Your task to perform on an android device: turn on javascript in the chrome app Image 0: 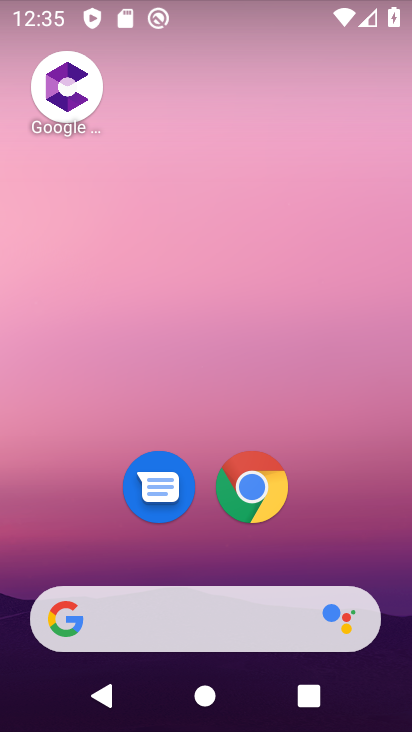
Step 0: click (275, 492)
Your task to perform on an android device: turn on javascript in the chrome app Image 1: 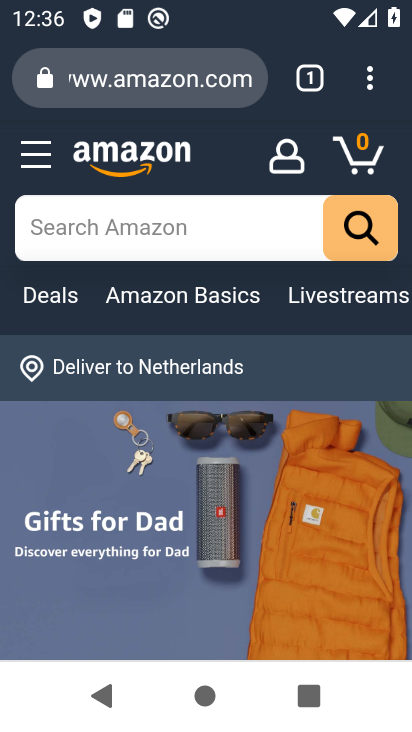
Step 1: drag from (370, 89) to (105, 537)
Your task to perform on an android device: turn on javascript in the chrome app Image 2: 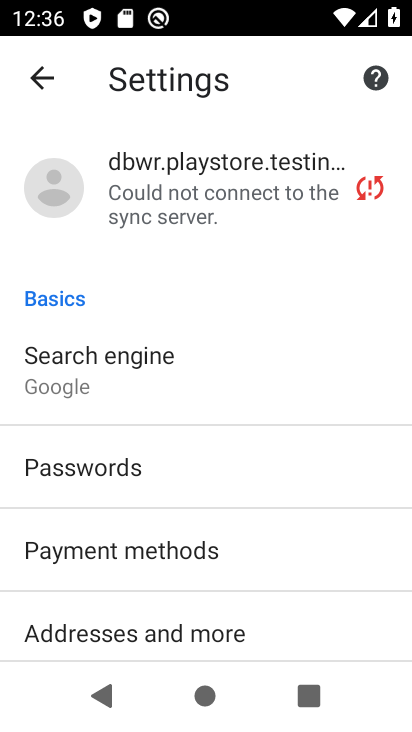
Step 2: drag from (177, 552) to (219, 1)
Your task to perform on an android device: turn on javascript in the chrome app Image 3: 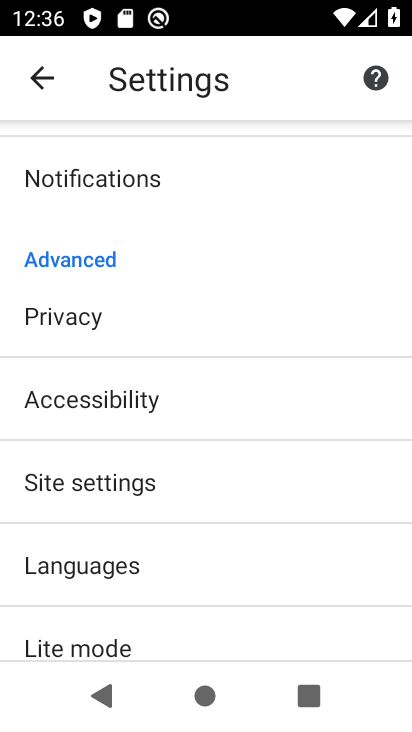
Step 3: drag from (156, 606) to (126, 201)
Your task to perform on an android device: turn on javascript in the chrome app Image 4: 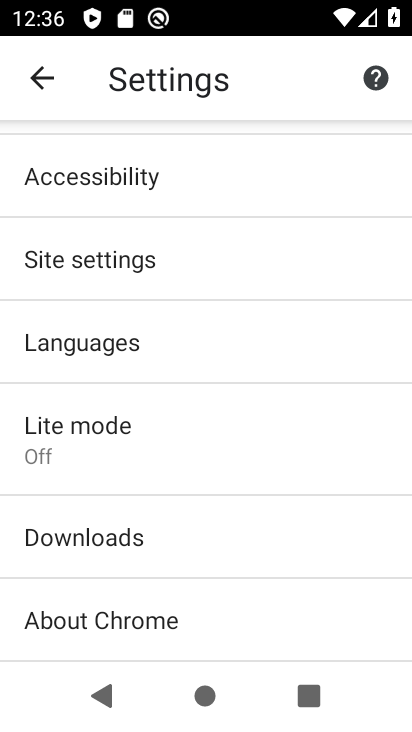
Step 4: click (102, 260)
Your task to perform on an android device: turn on javascript in the chrome app Image 5: 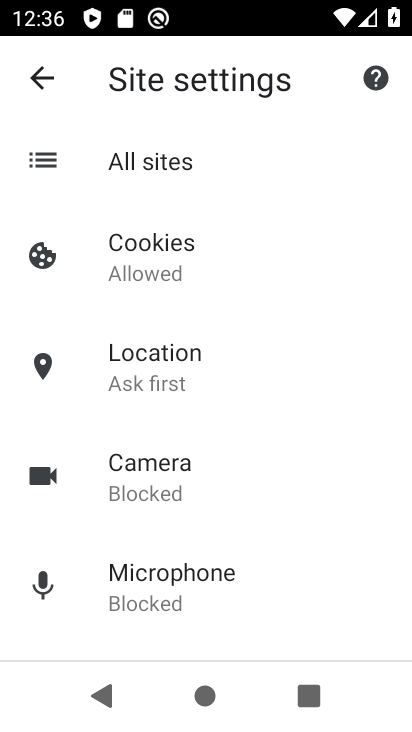
Step 5: drag from (186, 528) to (177, 15)
Your task to perform on an android device: turn on javascript in the chrome app Image 6: 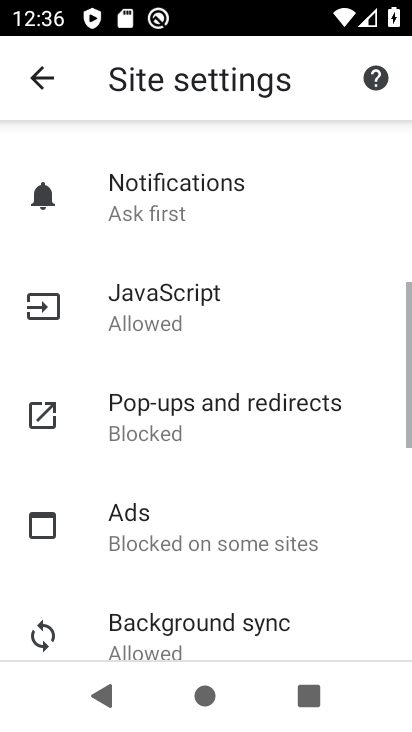
Step 6: click (198, 299)
Your task to perform on an android device: turn on javascript in the chrome app Image 7: 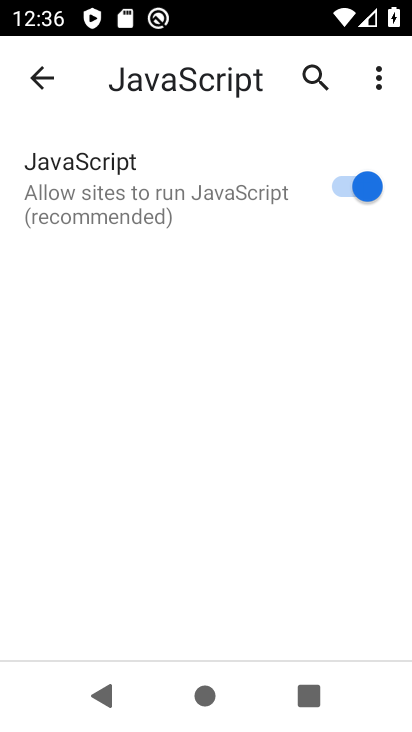
Step 7: task complete